Your task to perform on an android device: Check the weather Image 0: 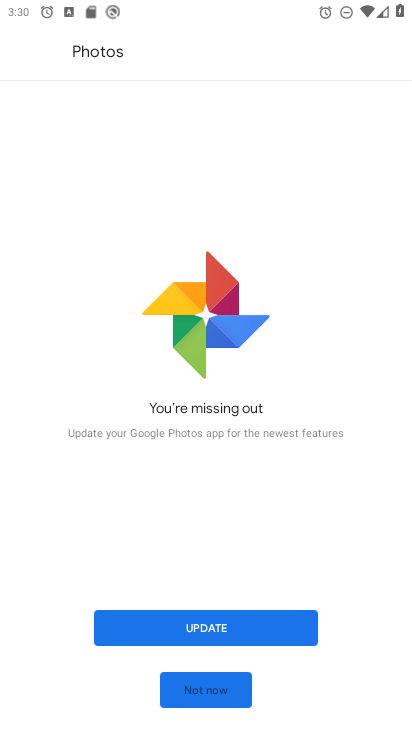
Step 0: press home button
Your task to perform on an android device: Check the weather Image 1: 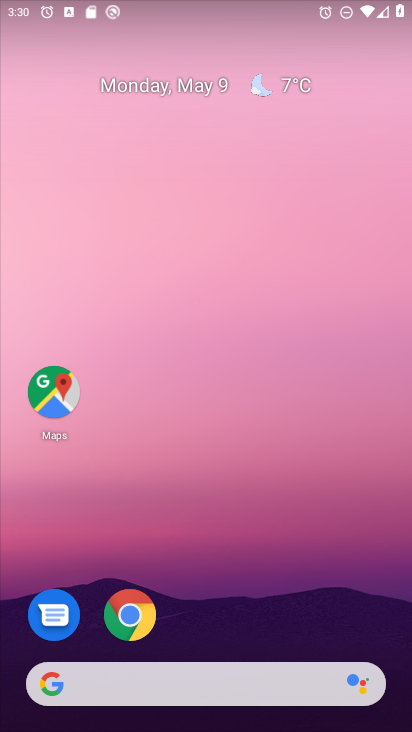
Step 1: click (266, 84)
Your task to perform on an android device: Check the weather Image 2: 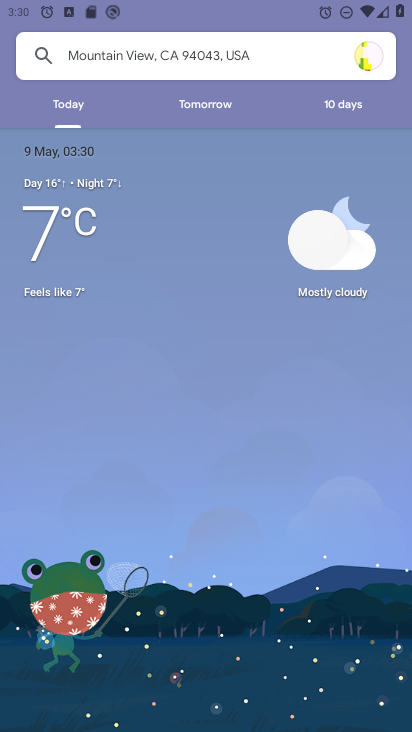
Step 2: task complete